Your task to perform on an android device: move a message to another label in the gmail app Image 0: 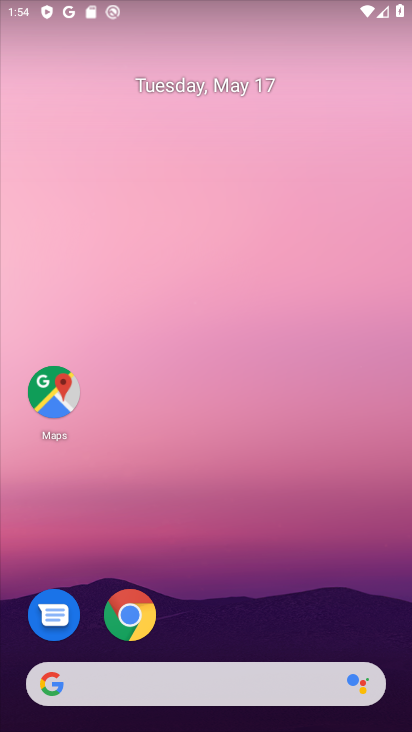
Step 0: drag from (261, 617) to (273, 44)
Your task to perform on an android device: move a message to another label in the gmail app Image 1: 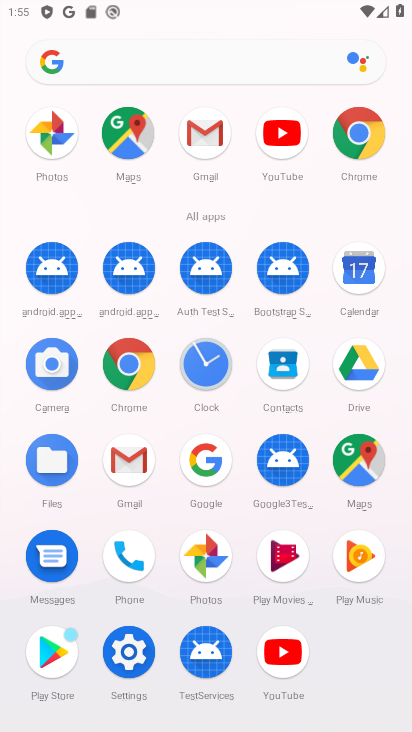
Step 1: click (199, 149)
Your task to perform on an android device: move a message to another label in the gmail app Image 2: 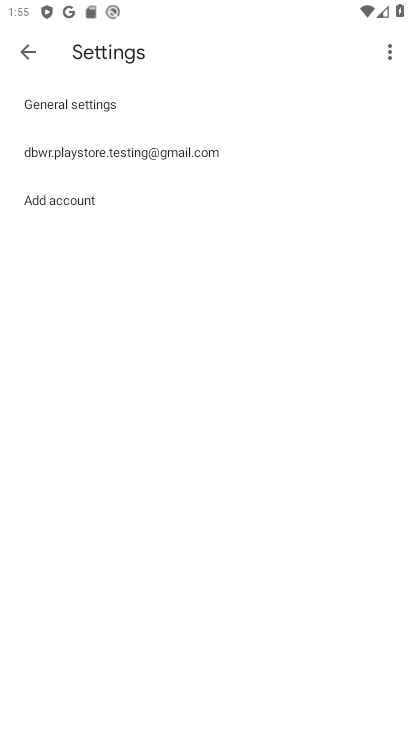
Step 2: click (27, 53)
Your task to perform on an android device: move a message to another label in the gmail app Image 3: 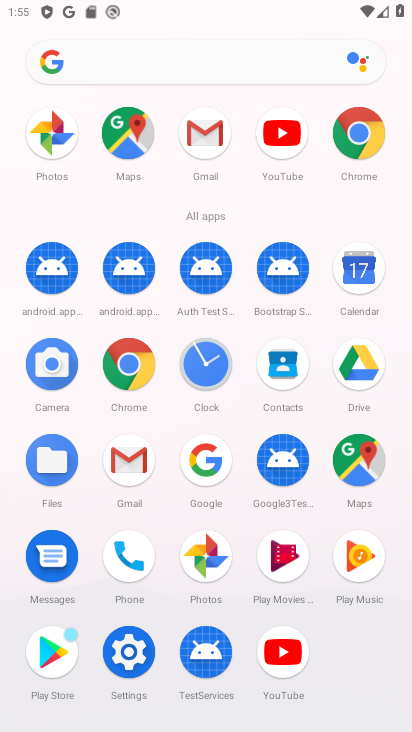
Step 3: click (197, 156)
Your task to perform on an android device: move a message to another label in the gmail app Image 4: 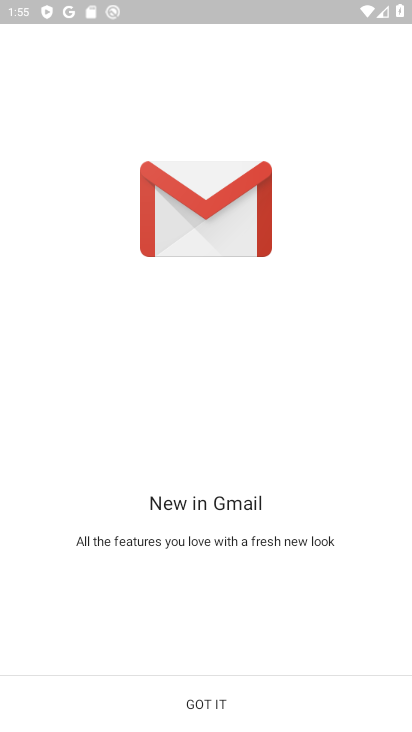
Step 4: click (201, 693)
Your task to perform on an android device: move a message to another label in the gmail app Image 5: 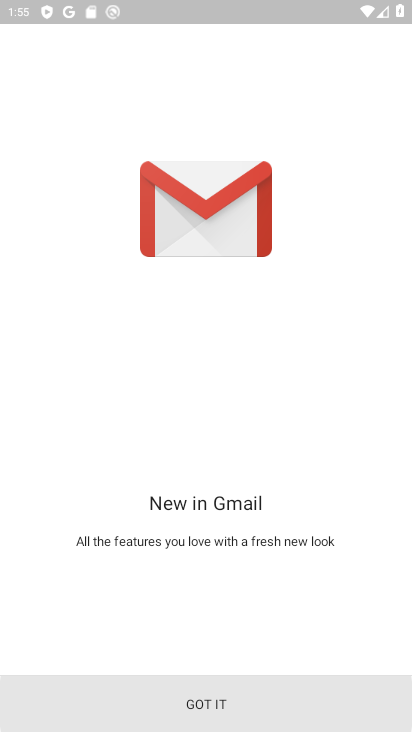
Step 5: click (201, 693)
Your task to perform on an android device: move a message to another label in the gmail app Image 6: 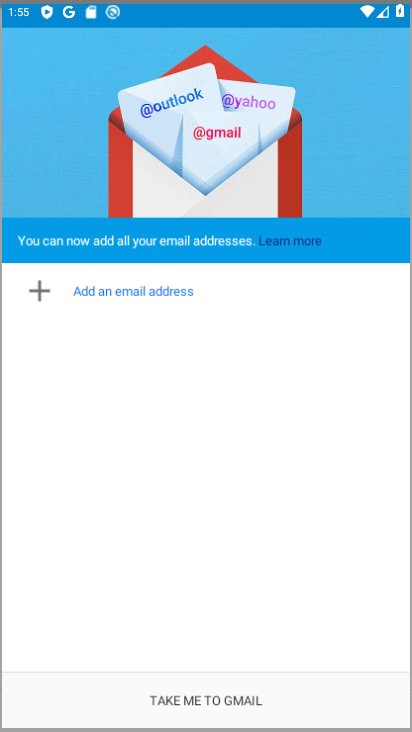
Step 6: click (201, 693)
Your task to perform on an android device: move a message to another label in the gmail app Image 7: 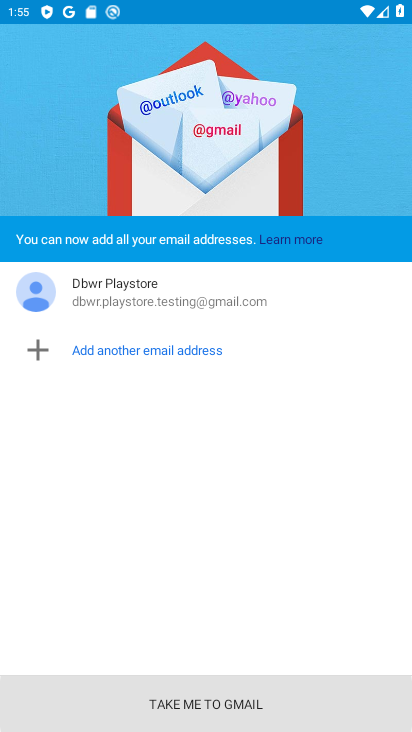
Step 7: click (201, 693)
Your task to perform on an android device: move a message to another label in the gmail app Image 8: 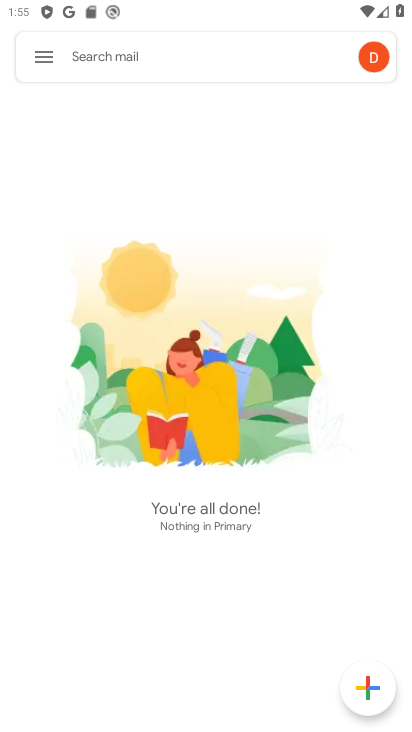
Step 8: click (41, 54)
Your task to perform on an android device: move a message to another label in the gmail app Image 9: 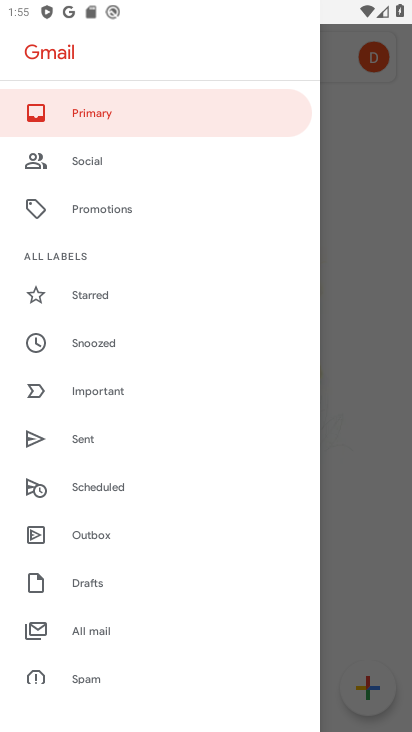
Step 9: task complete